Your task to perform on an android device: change the clock display to analog Image 0: 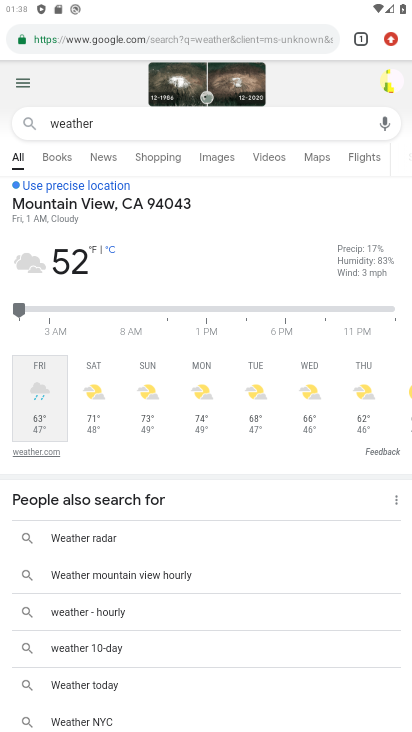
Step 0: press home button
Your task to perform on an android device: change the clock display to analog Image 1: 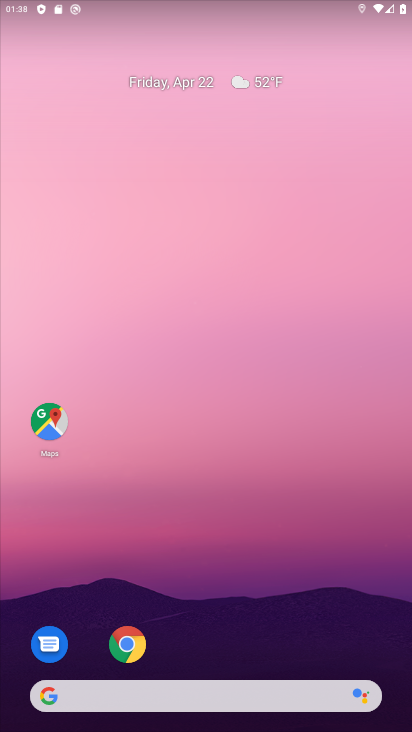
Step 1: drag from (250, 664) to (206, 104)
Your task to perform on an android device: change the clock display to analog Image 2: 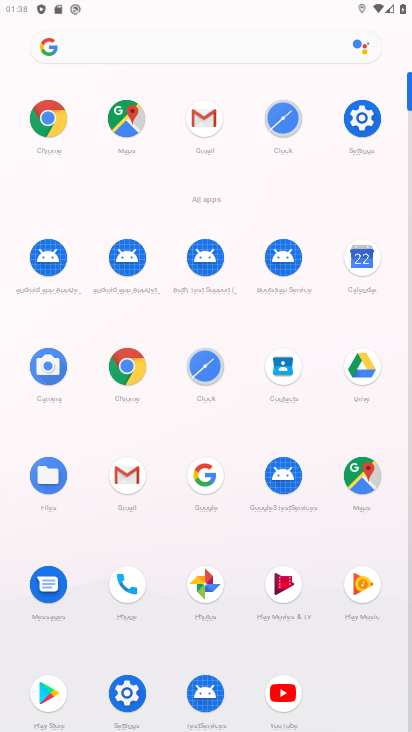
Step 2: click (286, 123)
Your task to perform on an android device: change the clock display to analog Image 3: 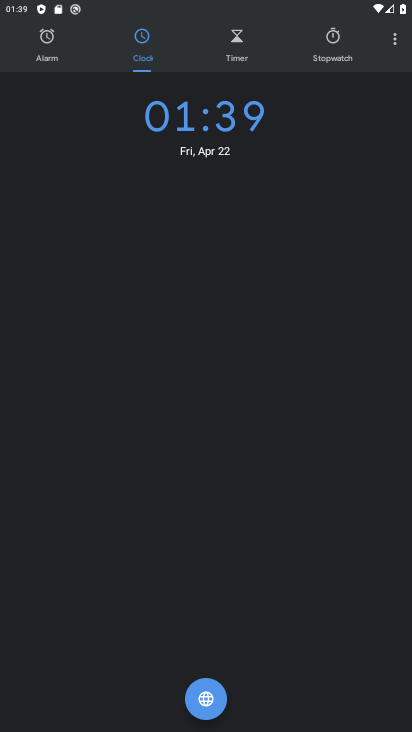
Step 3: click (391, 41)
Your task to perform on an android device: change the clock display to analog Image 4: 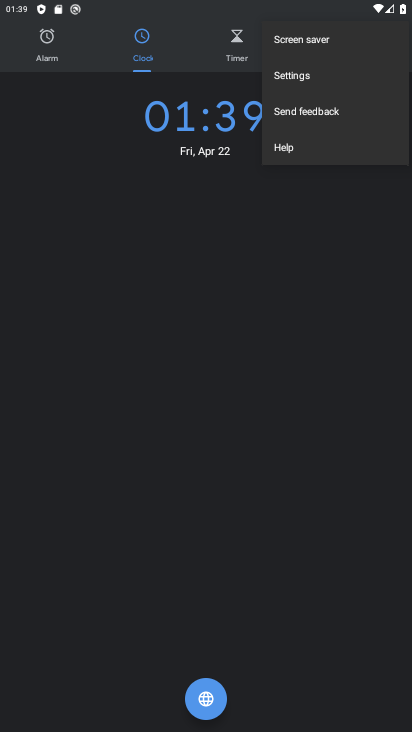
Step 4: click (355, 73)
Your task to perform on an android device: change the clock display to analog Image 5: 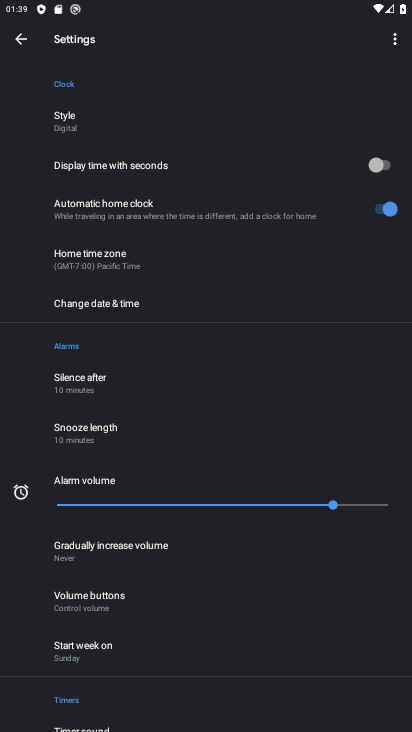
Step 5: click (145, 132)
Your task to perform on an android device: change the clock display to analog Image 6: 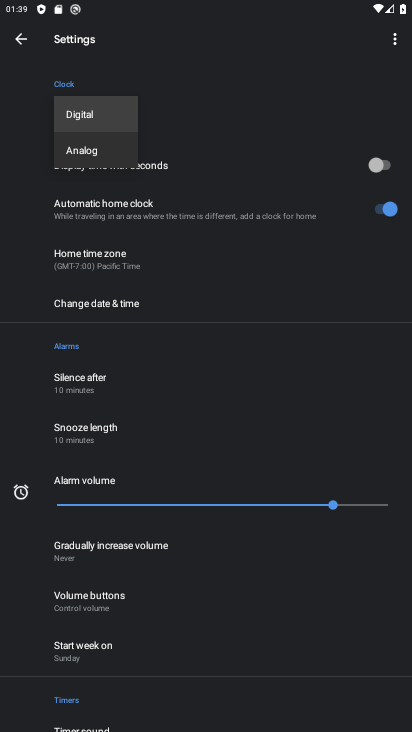
Step 6: click (126, 152)
Your task to perform on an android device: change the clock display to analog Image 7: 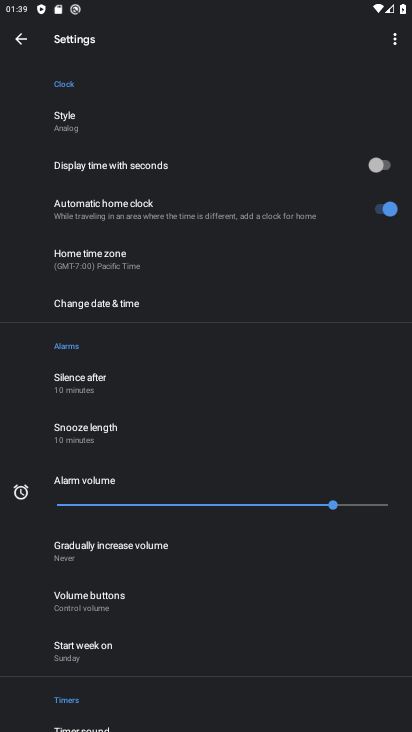
Step 7: task complete